Your task to perform on an android device: Open battery settings Image 0: 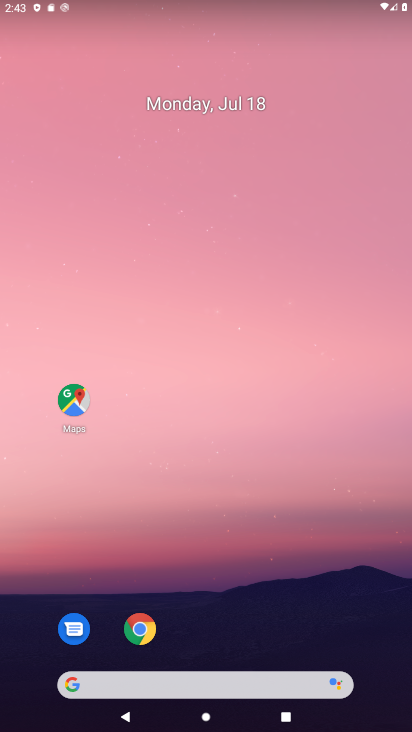
Step 0: drag from (372, 609) to (293, 97)
Your task to perform on an android device: Open battery settings Image 1: 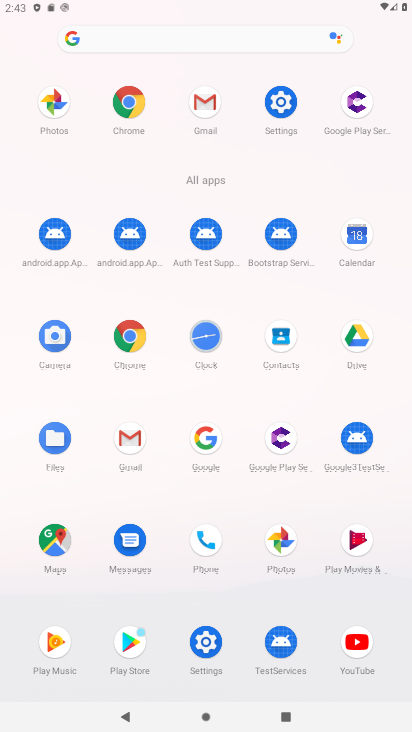
Step 1: click (210, 637)
Your task to perform on an android device: Open battery settings Image 2: 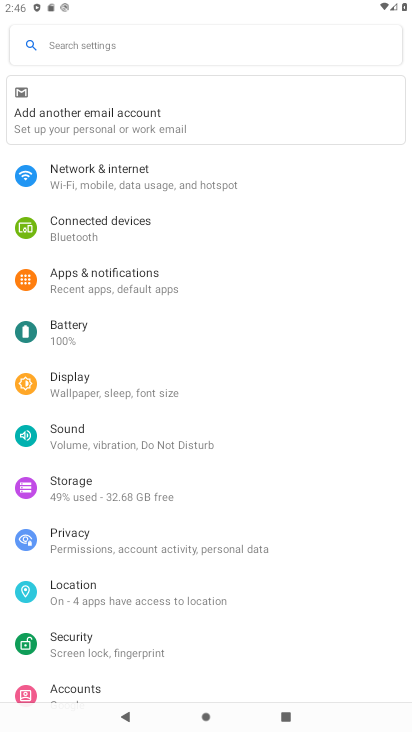
Step 2: click (63, 330)
Your task to perform on an android device: Open battery settings Image 3: 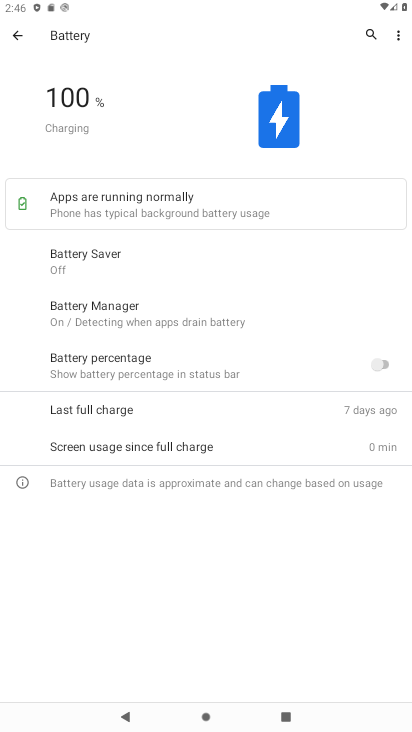
Step 3: task complete